Your task to perform on an android device: set an alarm Image 0: 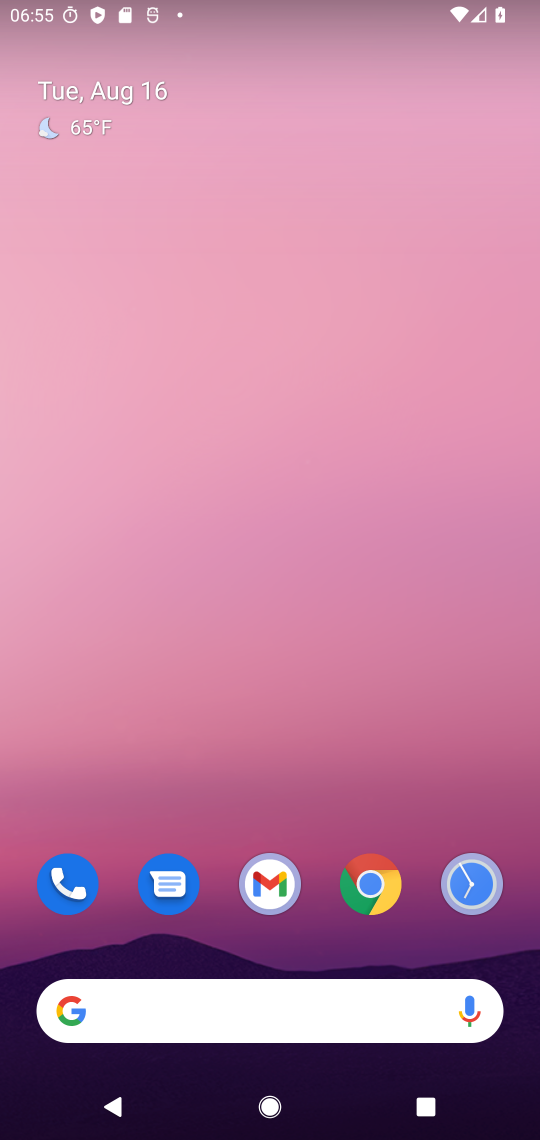
Step 0: click (470, 889)
Your task to perform on an android device: set an alarm Image 1: 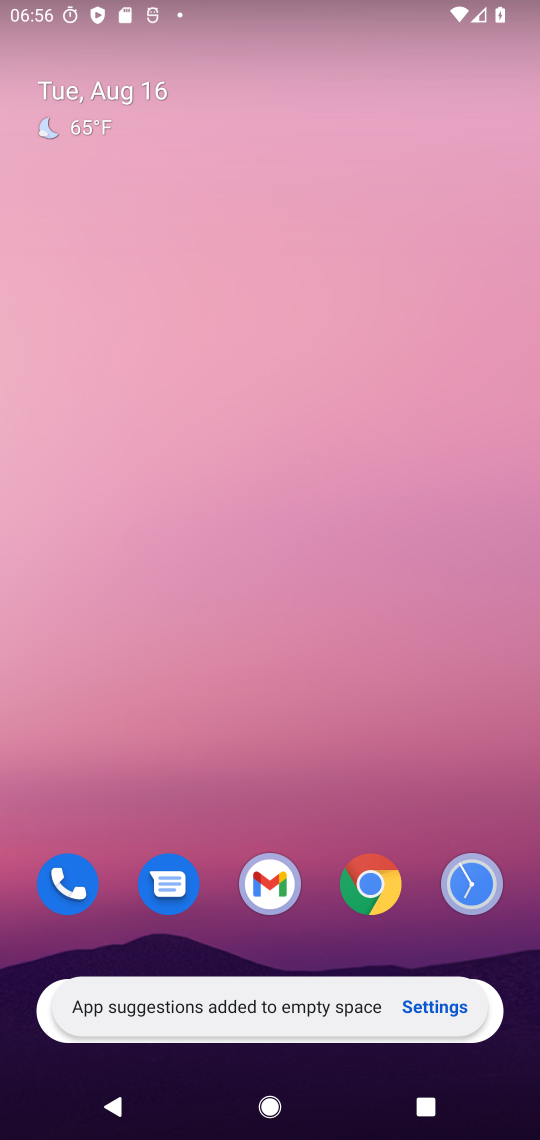
Step 1: click (471, 889)
Your task to perform on an android device: set an alarm Image 2: 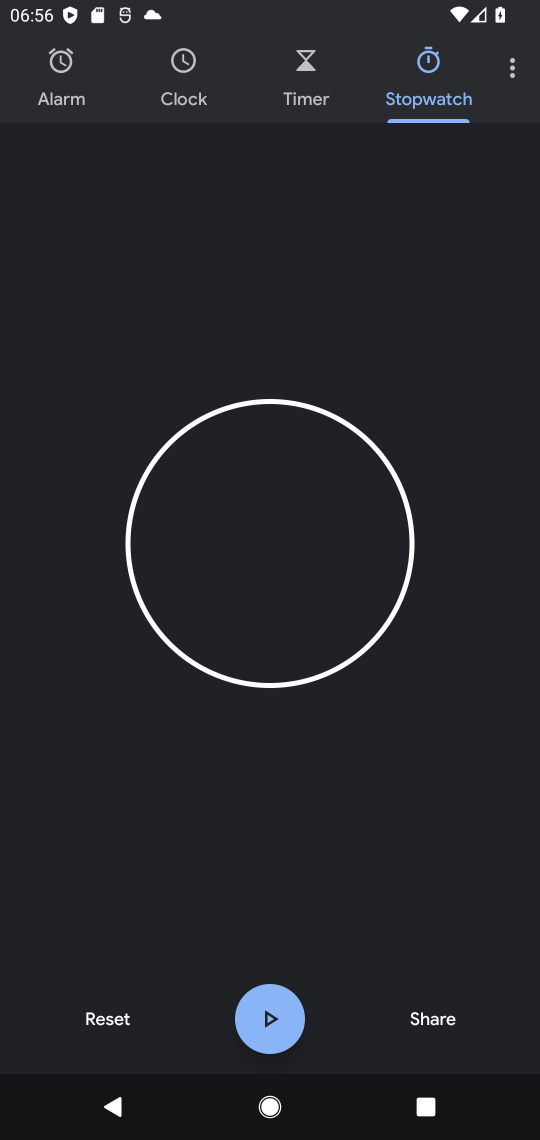
Step 2: click (50, 77)
Your task to perform on an android device: set an alarm Image 3: 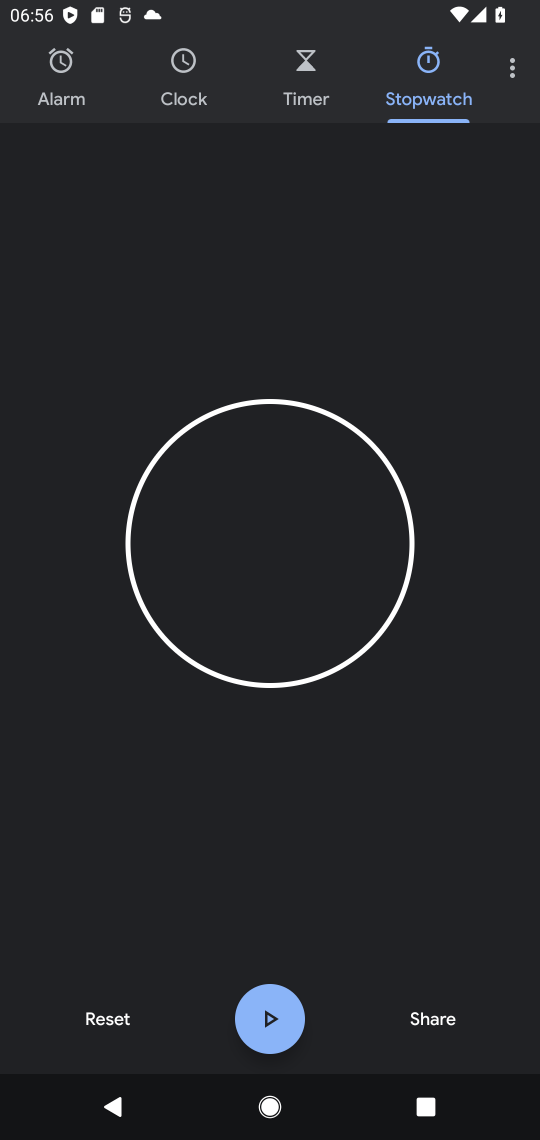
Step 3: click (68, 80)
Your task to perform on an android device: set an alarm Image 4: 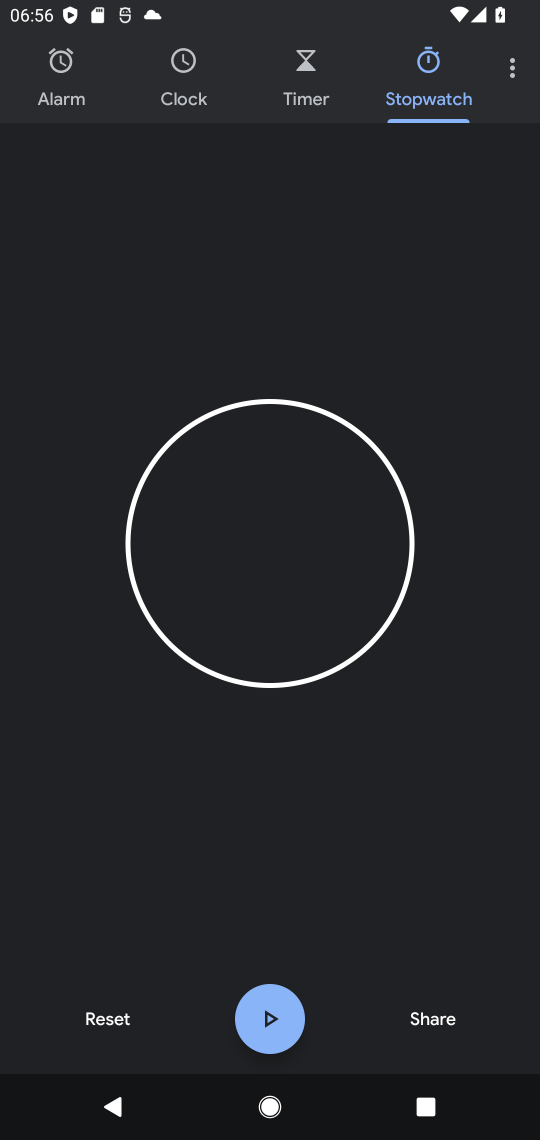
Step 4: click (62, 77)
Your task to perform on an android device: set an alarm Image 5: 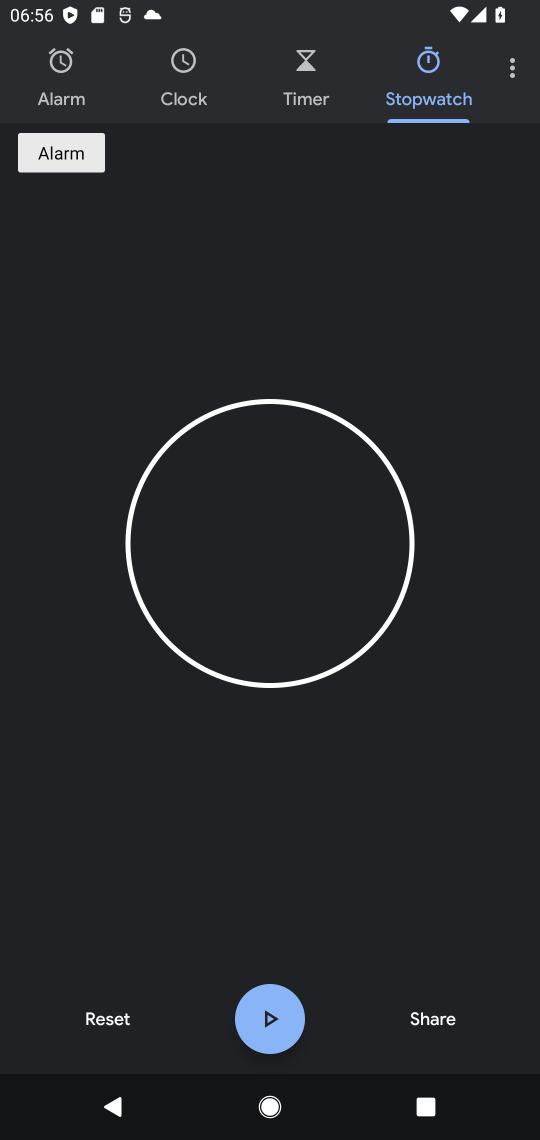
Step 5: click (57, 89)
Your task to perform on an android device: set an alarm Image 6: 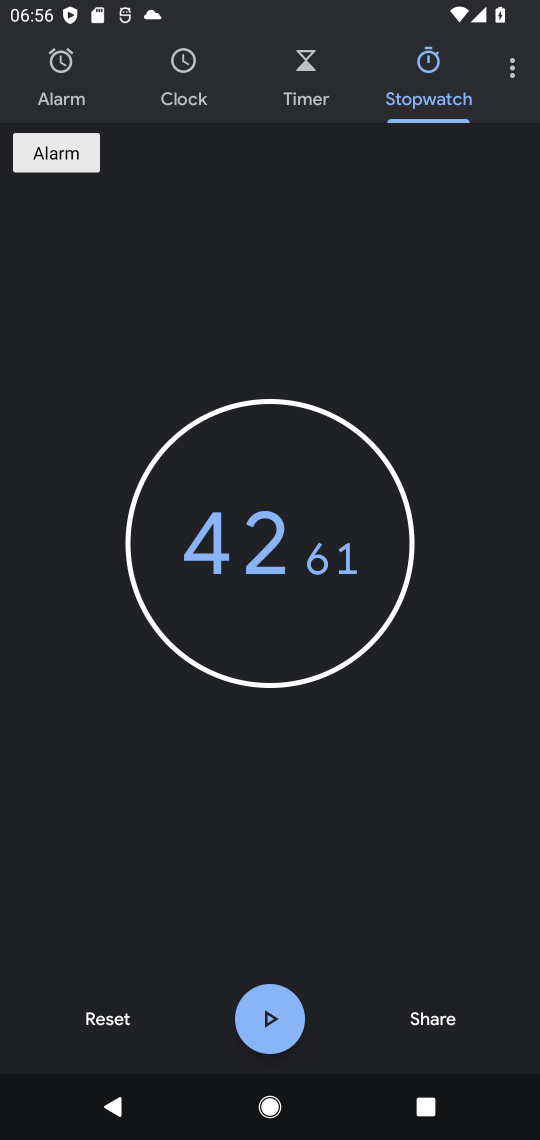
Step 6: click (60, 92)
Your task to perform on an android device: set an alarm Image 7: 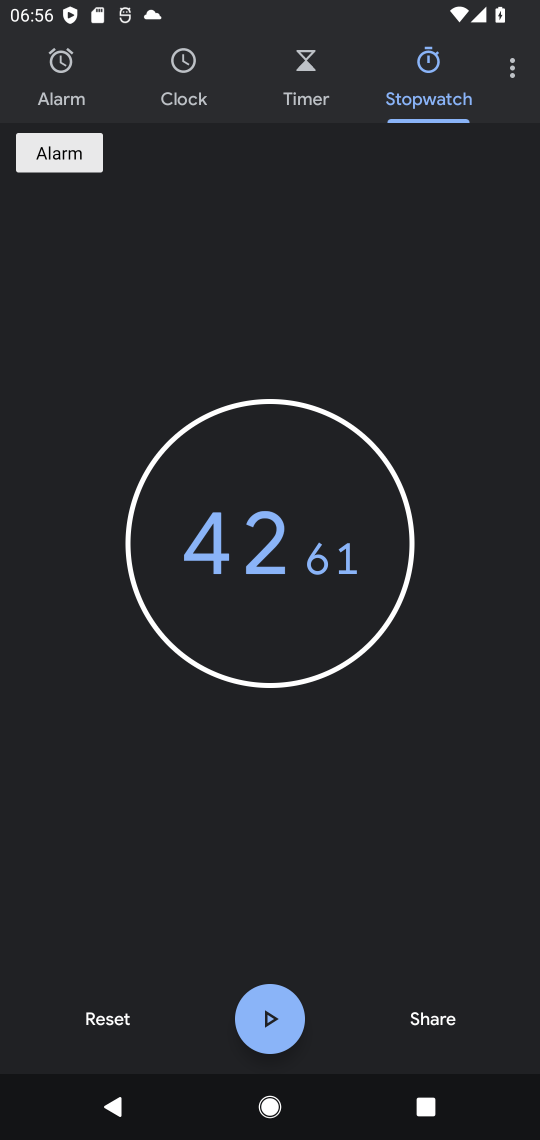
Step 7: click (60, 92)
Your task to perform on an android device: set an alarm Image 8: 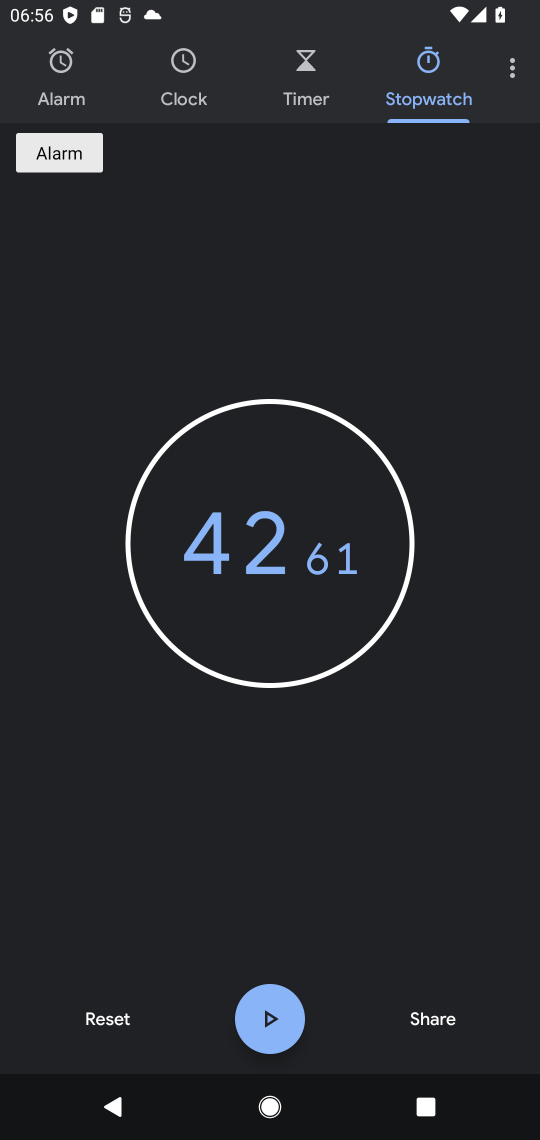
Step 8: click (178, 77)
Your task to perform on an android device: set an alarm Image 9: 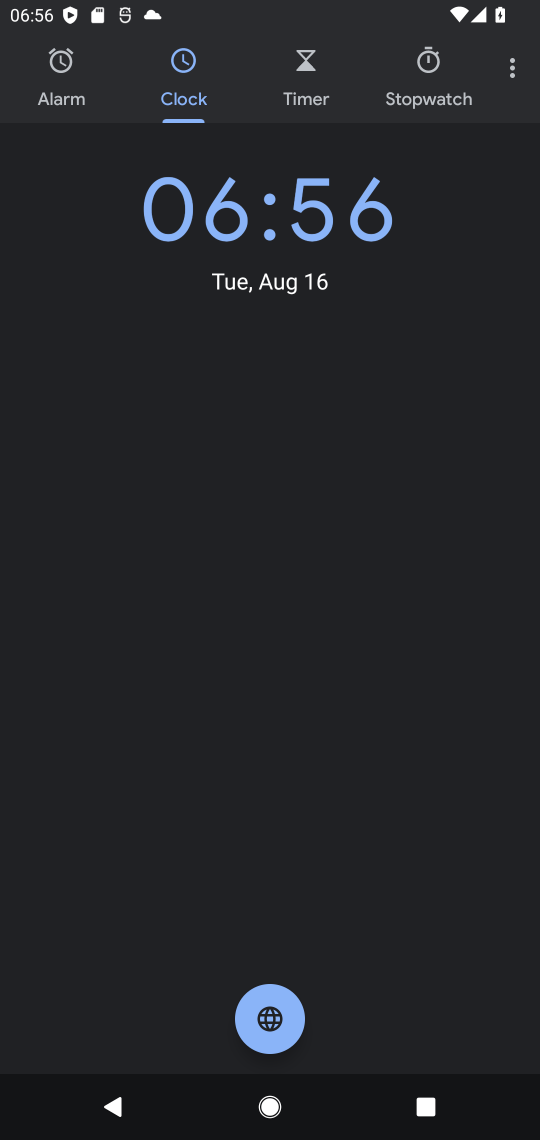
Step 9: click (66, 76)
Your task to perform on an android device: set an alarm Image 10: 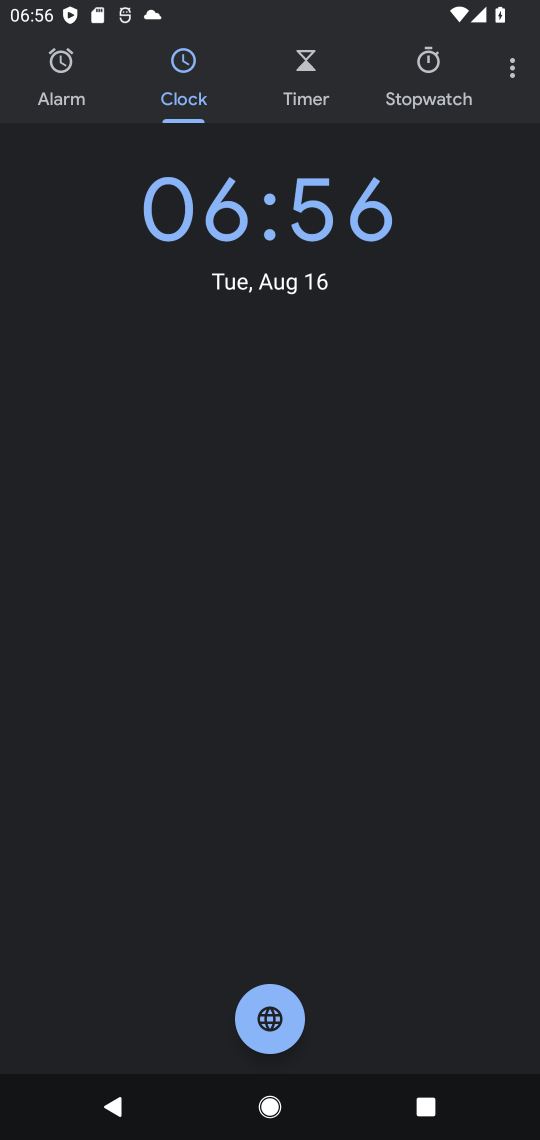
Step 10: task complete